Your task to perform on an android device: find photos in the google photos app Image 0: 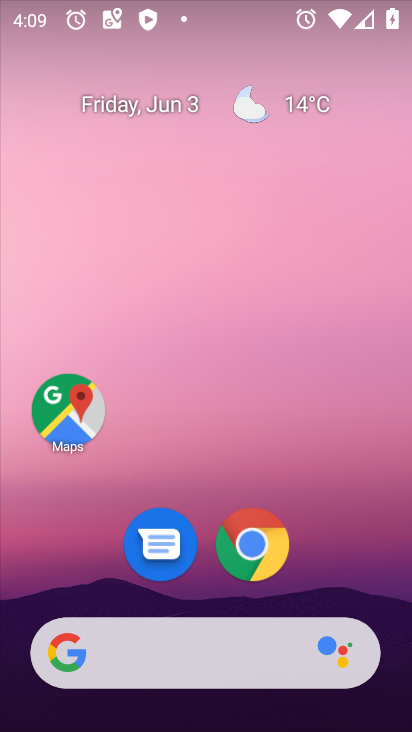
Step 0: drag from (396, 645) to (319, 23)
Your task to perform on an android device: find photos in the google photos app Image 1: 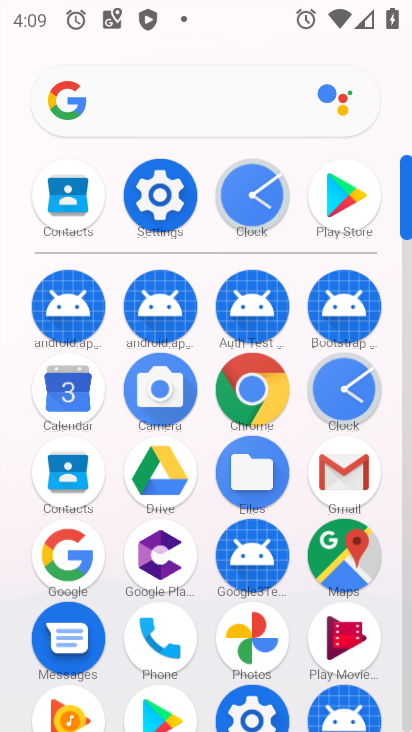
Step 1: click (405, 689)
Your task to perform on an android device: find photos in the google photos app Image 2: 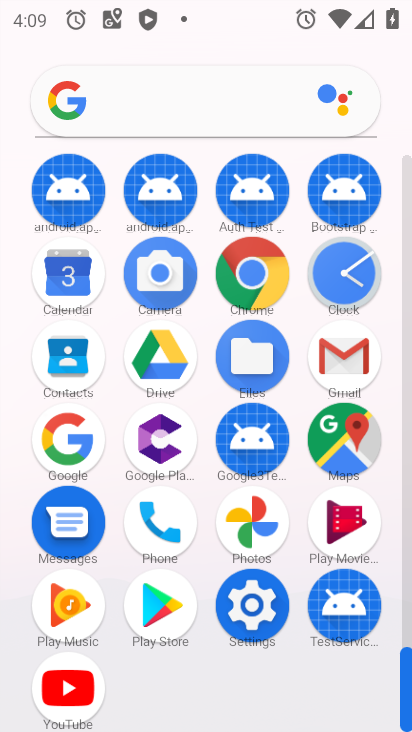
Step 2: click (254, 521)
Your task to perform on an android device: find photos in the google photos app Image 3: 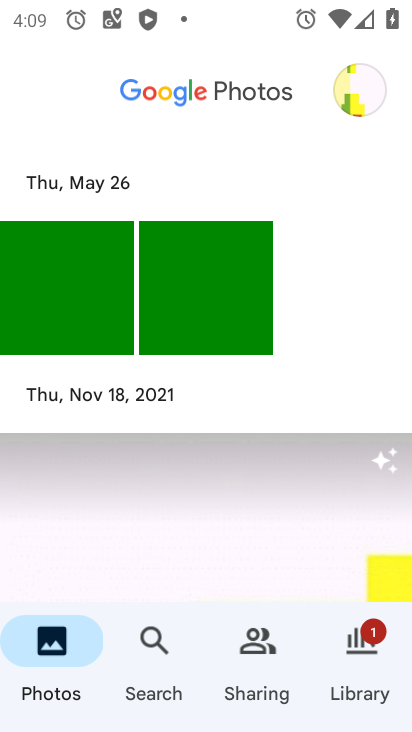
Step 3: task complete